Your task to perform on an android device: turn on location history Image 0: 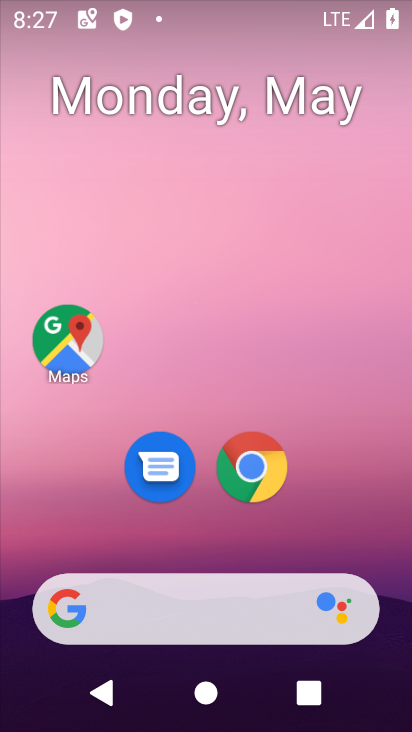
Step 0: drag from (323, 539) to (169, 45)
Your task to perform on an android device: turn on location history Image 1: 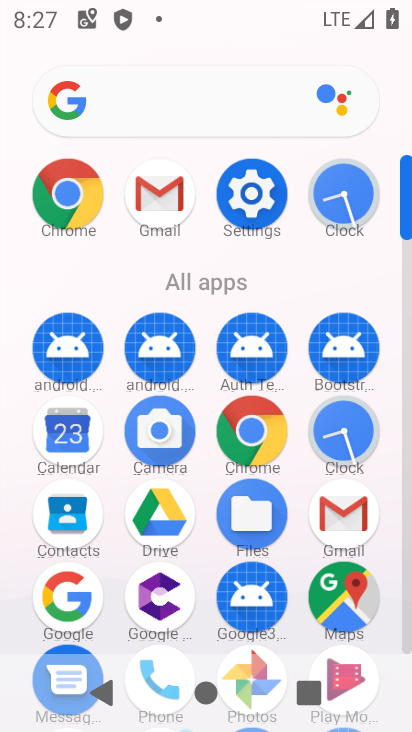
Step 1: click (244, 205)
Your task to perform on an android device: turn on location history Image 2: 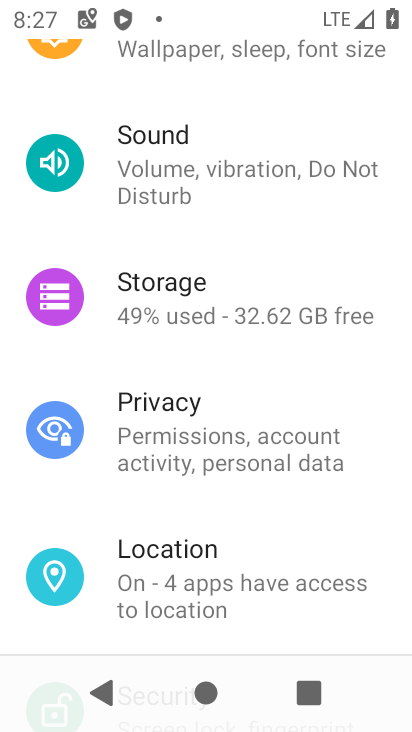
Step 2: click (207, 569)
Your task to perform on an android device: turn on location history Image 3: 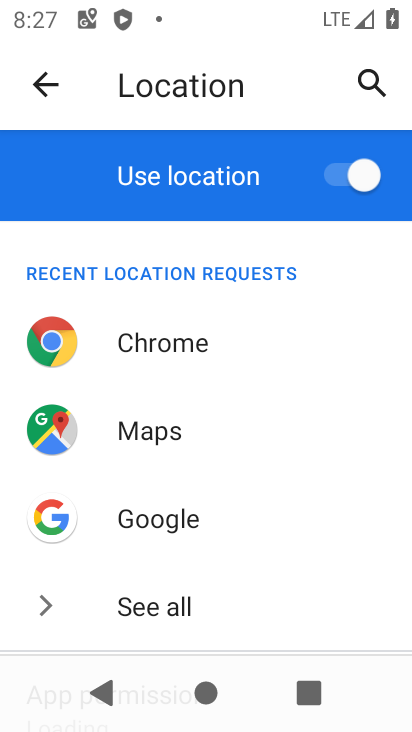
Step 3: drag from (275, 508) to (264, 179)
Your task to perform on an android device: turn on location history Image 4: 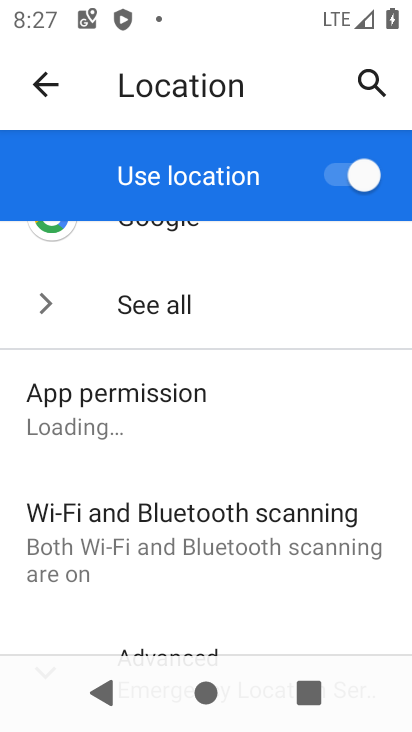
Step 4: drag from (217, 579) to (224, 188)
Your task to perform on an android device: turn on location history Image 5: 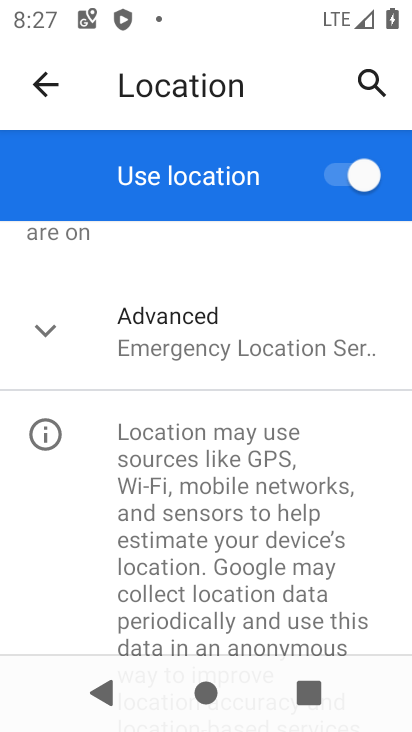
Step 5: click (213, 343)
Your task to perform on an android device: turn on location history Image 6: 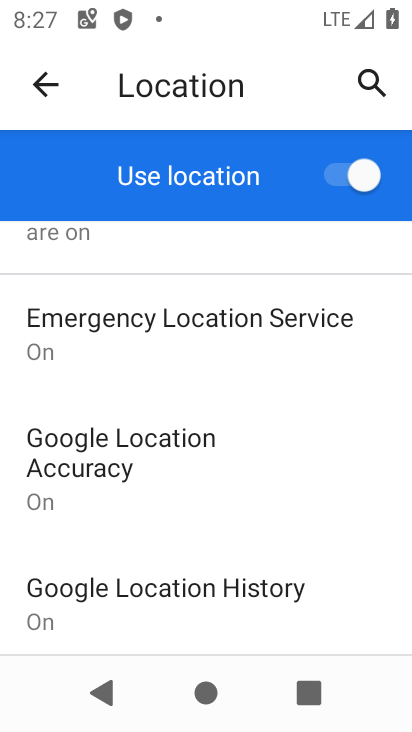
Step 6: click (221, 579)
Your task to perform on an android device: turn on location history Image 7: 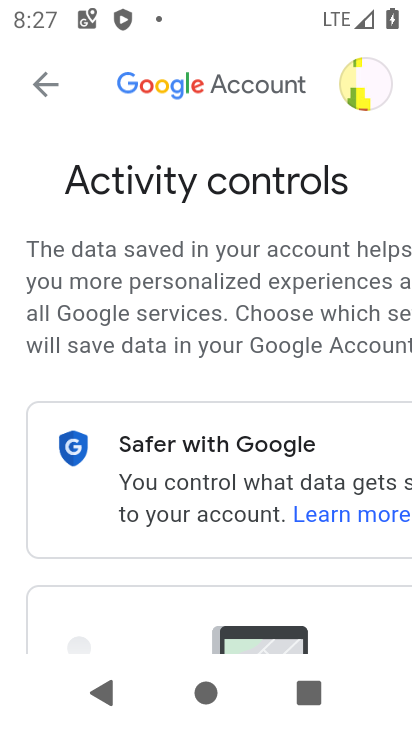
Step 7: task complete